Your task to perform on an android device: Search for vegetarian restaurants on Maps Image 0: 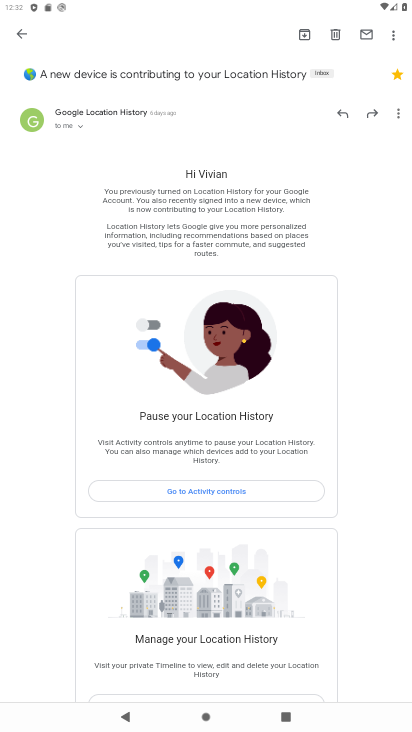
Step 0: press home button
Your task to perform on an android device: Search for vegetarian restaurants on Maps Image 1: 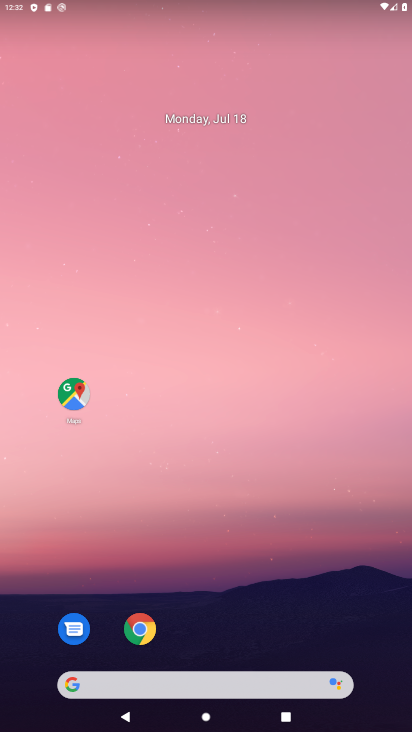
Step 1: click (67, 396)
Your task to perform on an android device: Search for vegetarian restaurants on Maps Image 2: 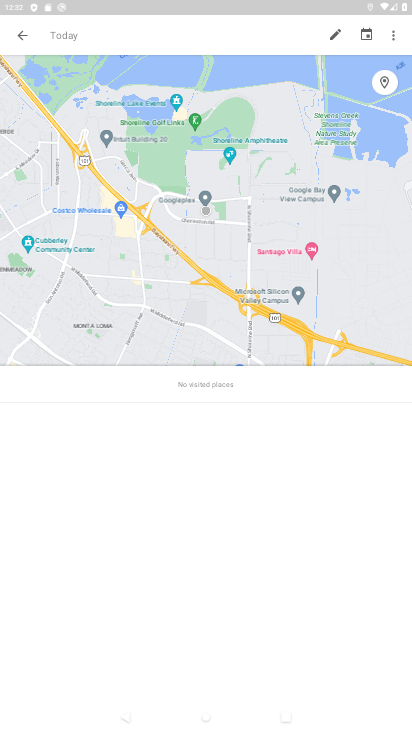
Step 2: click (24, 35)
Your task to perform on an android device: Search for vegetarian restaurants on Maps Image 3: 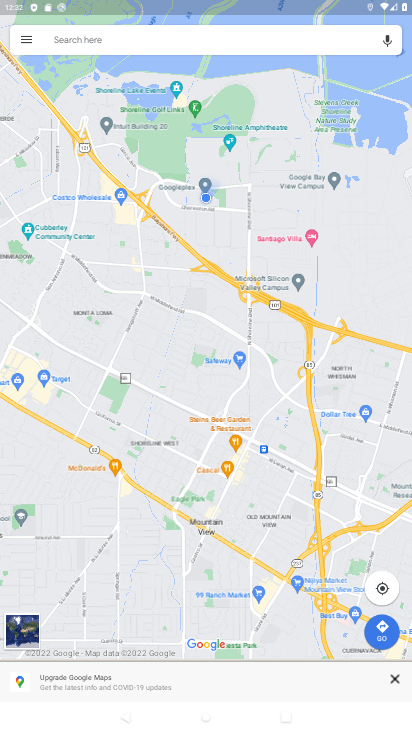
Step 3: click (101, 36)
Your task to perform on an android device: Search for vegetarian restaurants on Maps Image 4: 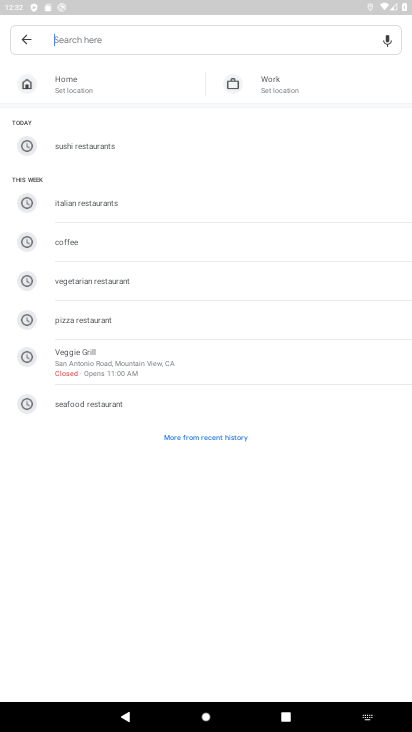
Step 4: click (93, 279)
Your task to perform on an android device: Search for vegetarian restaurants on Maps Image 5: 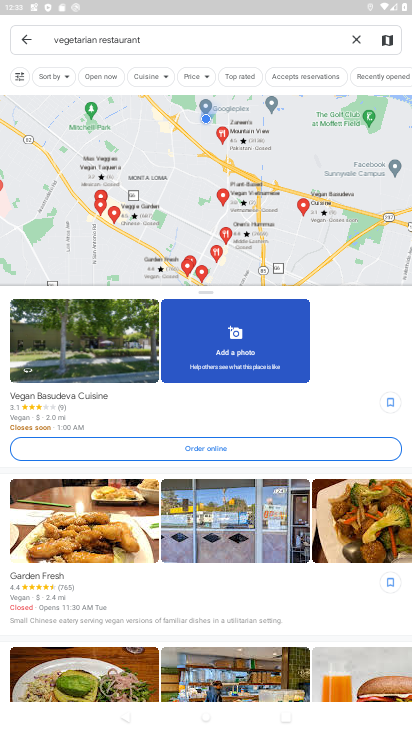
Step 5: task complete